Your task to perform on an android device: Turn off the flashlight Image 0: 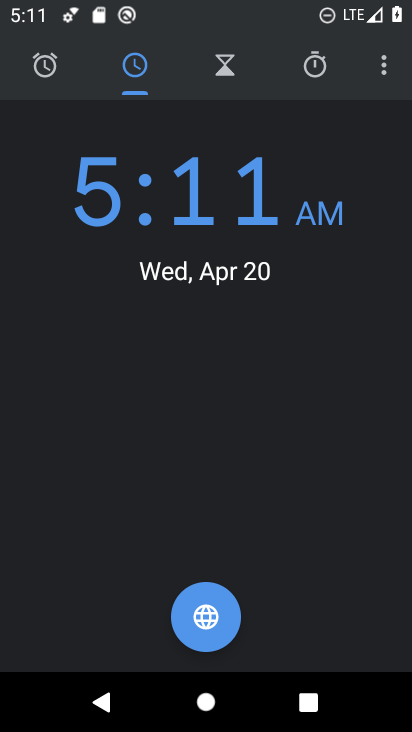
Step 0: press home button
Your task to perform on an android device: Turn off the flashlight Image 1: 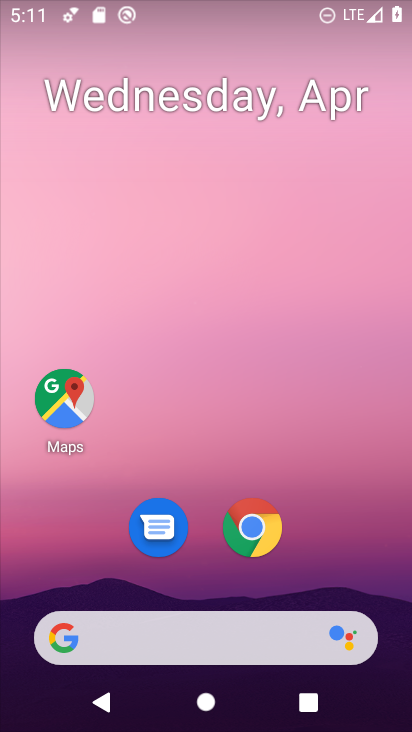
Step 1: task complete